Your task to perform on an android device: Go to eBay Image 0: 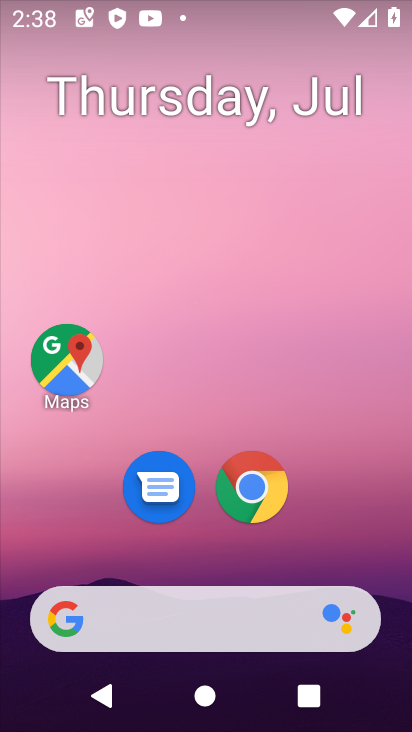
Step 0: drag from (364, 552) to (353, 132)
Your task to perform on an android device: Go to eBay Image 1: 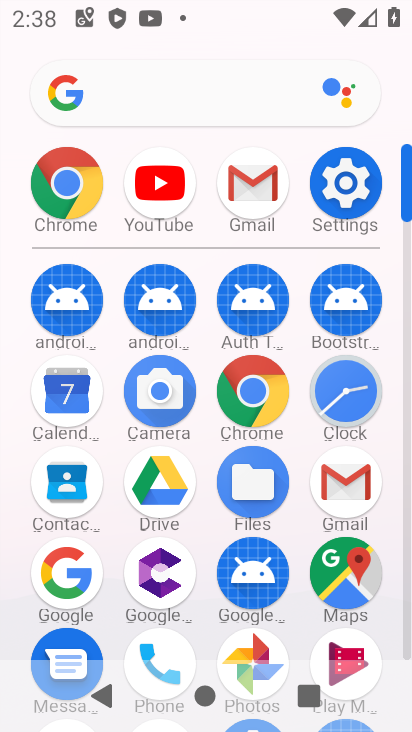
Step 1: click (269, 393)
Your task to perform on an android device: Go to eBay Image 2: 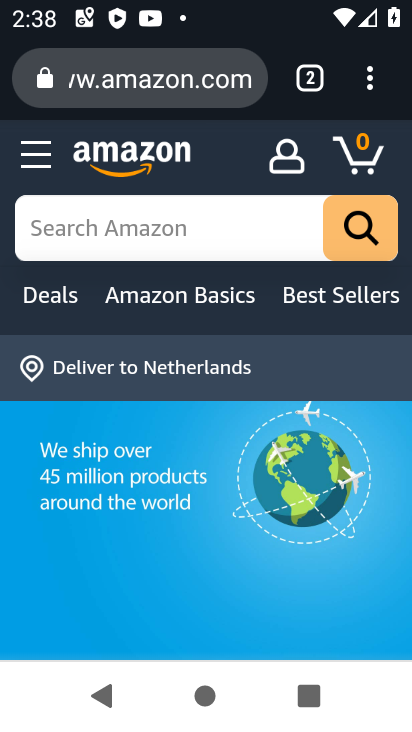
Step 2: click (208, 91)
Your task to perform on an android device: Go to eBay Image 3: 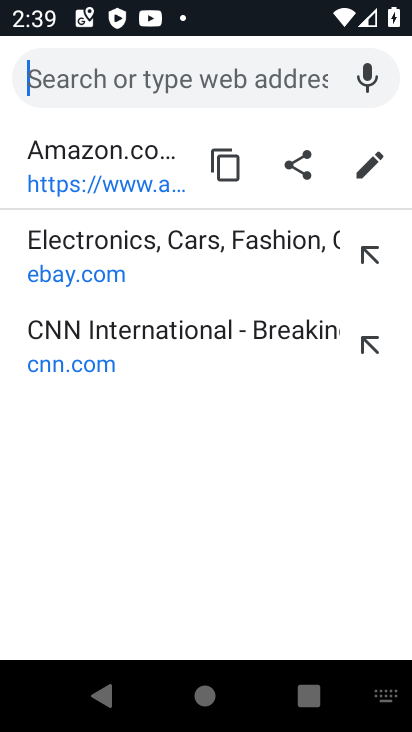
Step 3: type "ebay"
Your task to perform on an android device: Go to eBay Image 4: 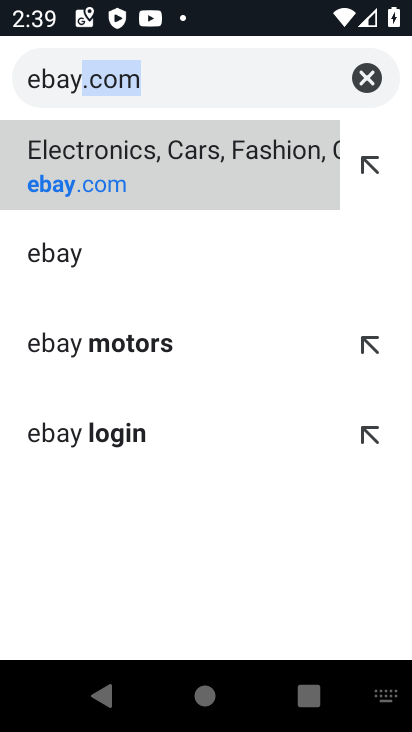
Step 4: click (260, 186)
Your task to perform on an android device: Go to eBay Image 5: 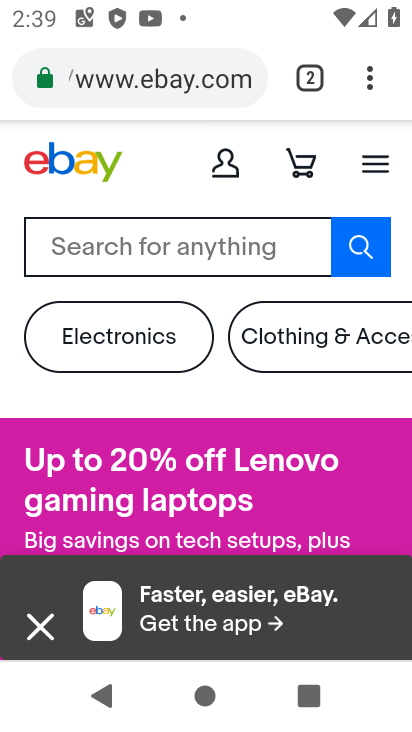
Step 5: task complete